Your task to perform on an android device: turn on translation in the chrome app Image 0: 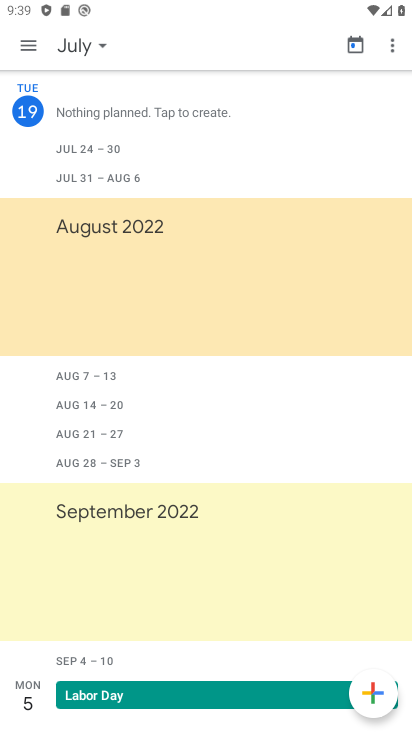
Step 0: press home button
Your task to perform on an android device: turn on translation in the chrome app Image 1: 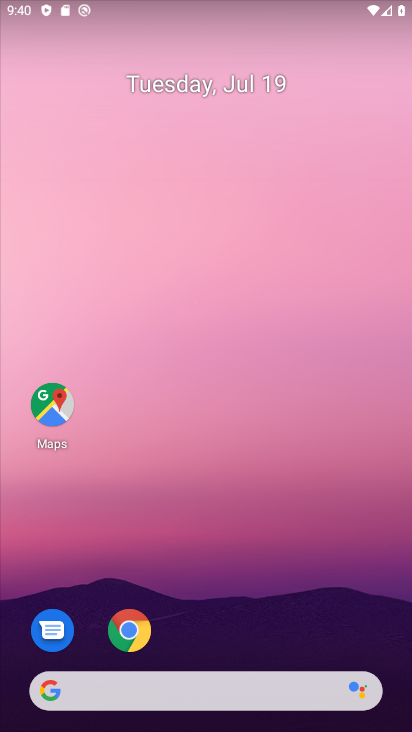
Step 1: click (121, 646)
Your task to perform on an android device: turn on translation in the chrome app Image 2: 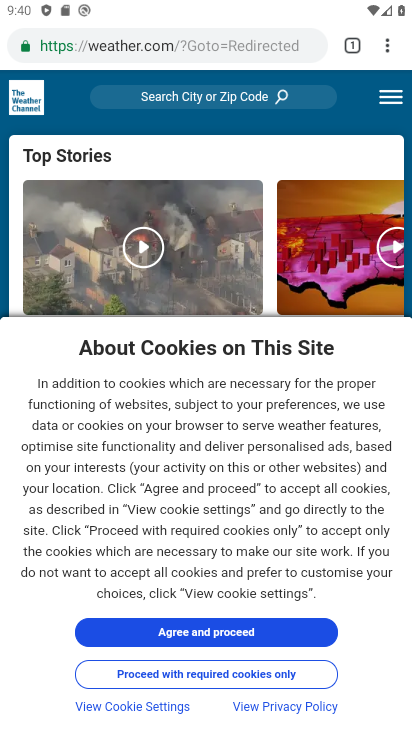
Step 2: click (383, 38)
Your task to perform on an android device: turn on translation in the chrome app Image 3: 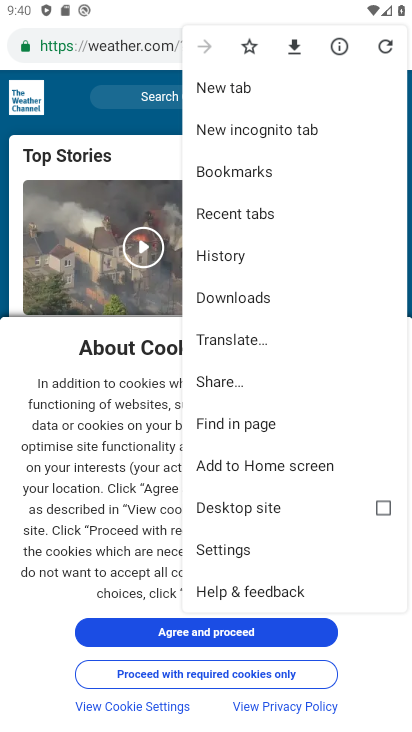
Step 3: click (254, 542)
Your task to perform on an android device: turn on translation in the chrome app Image 4: 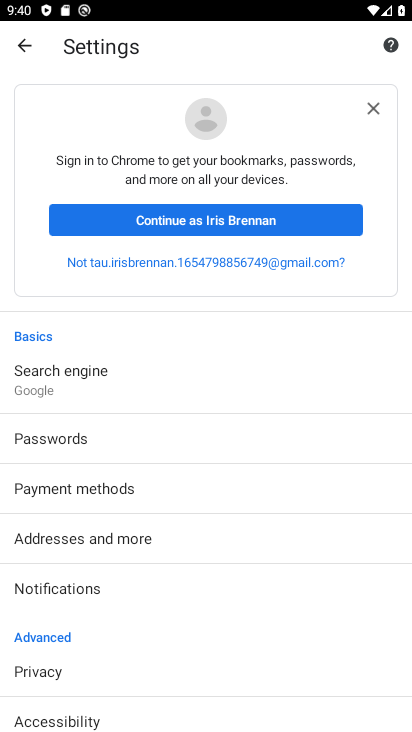
Step 4: drag from (62, 652) to (256, 223)
Your task to perform on an android device: turn on translation in the chrome app Image 5: 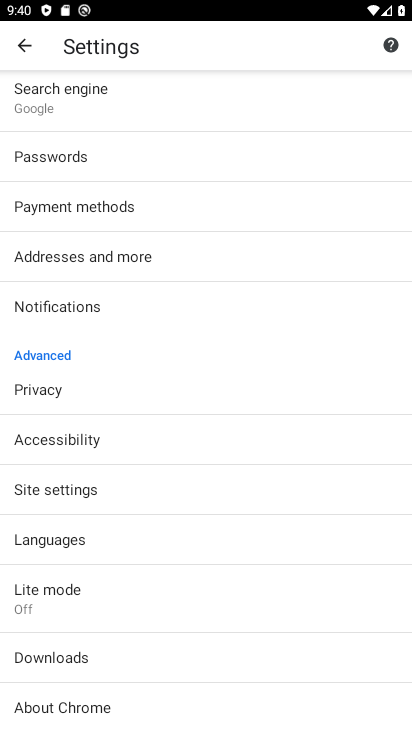
Step 5: click (63, 544)
Your task to perform on an android device: turn on translation in the chrome app Image 6: 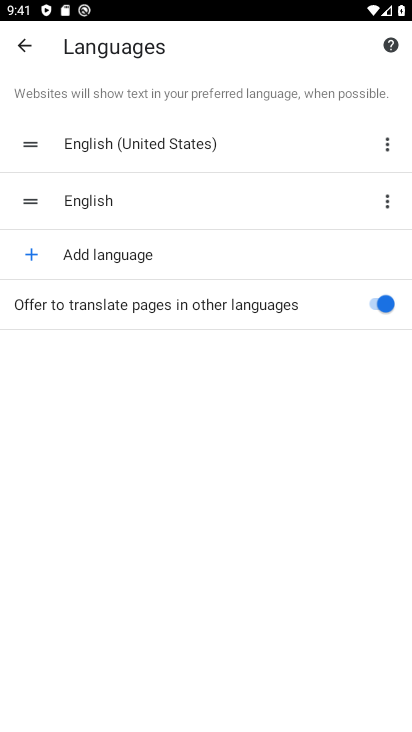
Step 6: task complete